Your task to perform on an android device: refresh tabs in the chrome app Image 0: 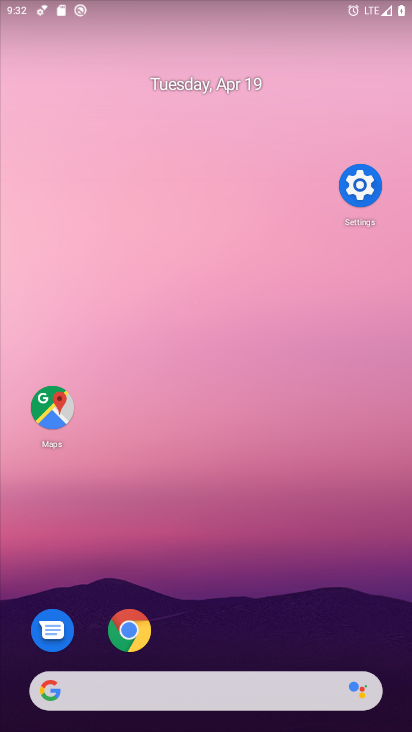
Step 0: drag from (219, 532) to (195, 136)
Your task to perform on an android device: refresh tabs in the chrome app Image 1: 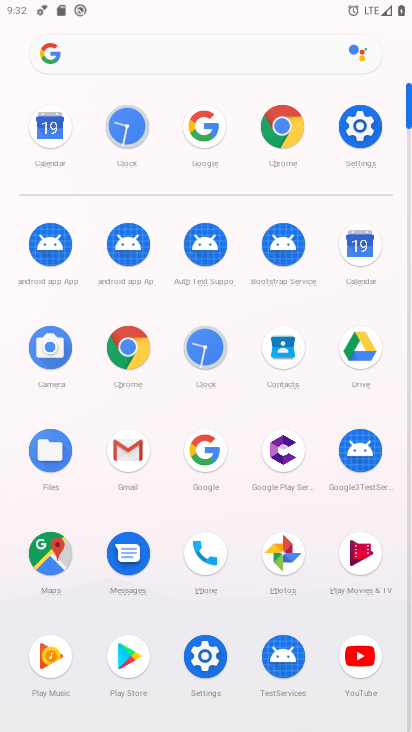
Step 1: click (136, 347)
Your task to perform on an android device: refresh tabs in the chrome app Image 2: 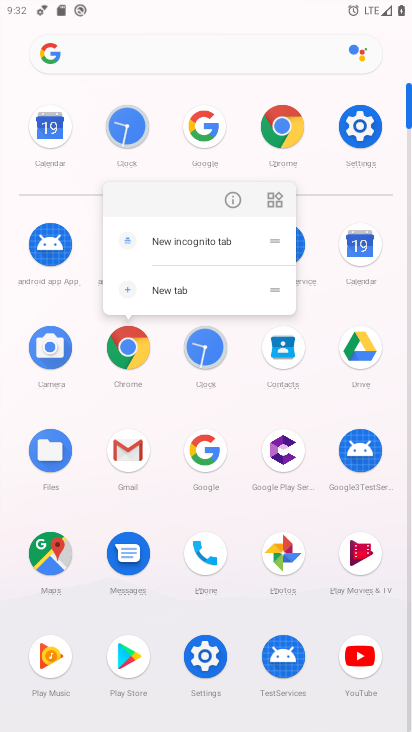
Step 2: click (136, 362)
Your task to perform on an android device: refresh tabs in the chrome app Image 3: 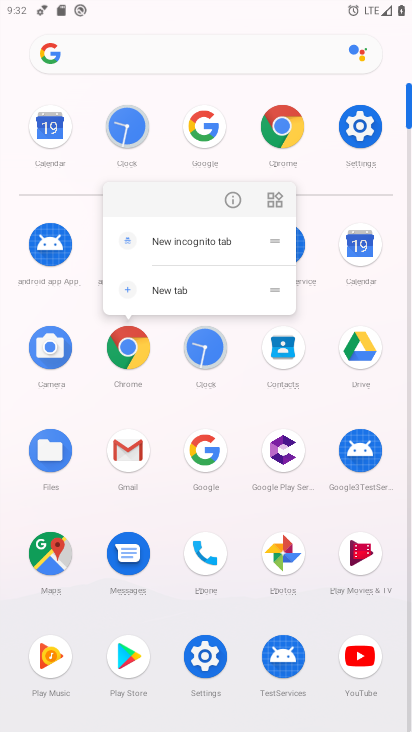
Step 3: click (130, 358)
Your task to perform on an android device: refresh tabs in the chrome app Image 4: 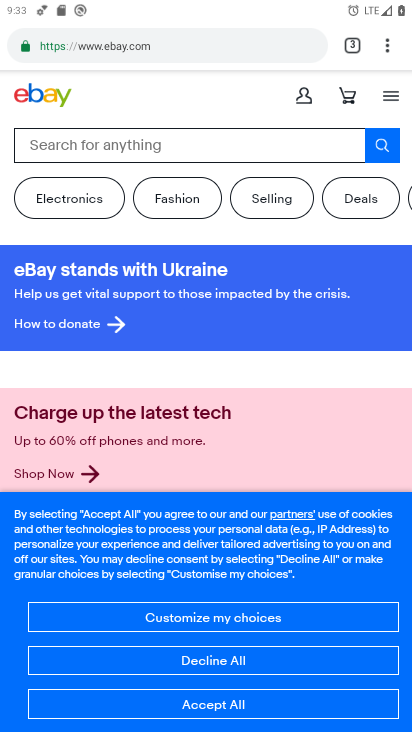
Step 4: click (385, 58)
Your task to perform on an android device: refresh tabs in the chrome app Image 5: 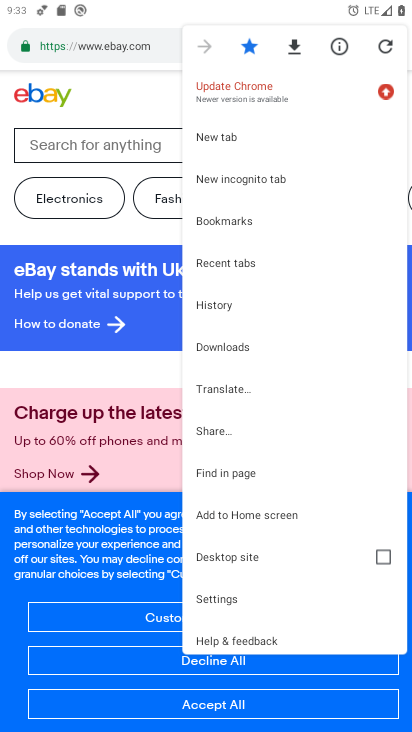
Step 5: click (395, 46)
Your task to perform on an android device: refresh tabs in the chrome app Image 6: 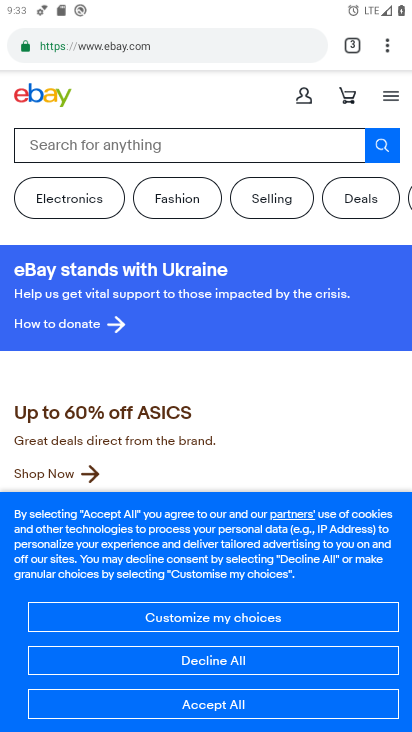
Step 6: task complete